Your task to perform on an android device: uninstall "eBay: The shopping marketplace" Image 0: 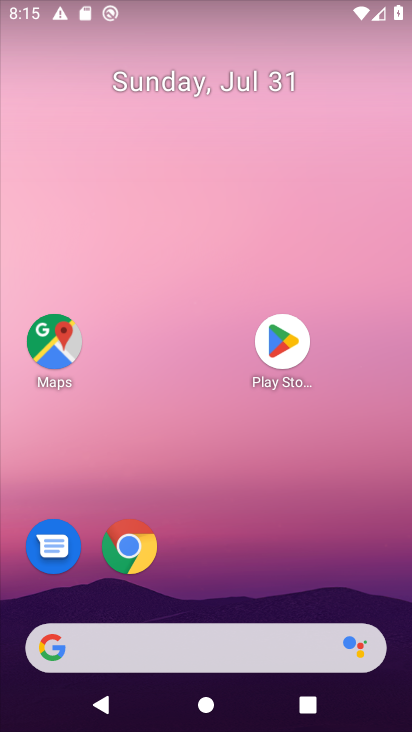
Step 0: click (289, 340)
Your task to perform on an android device: uninstall "eBay: The shopping marketplace" Image 1: 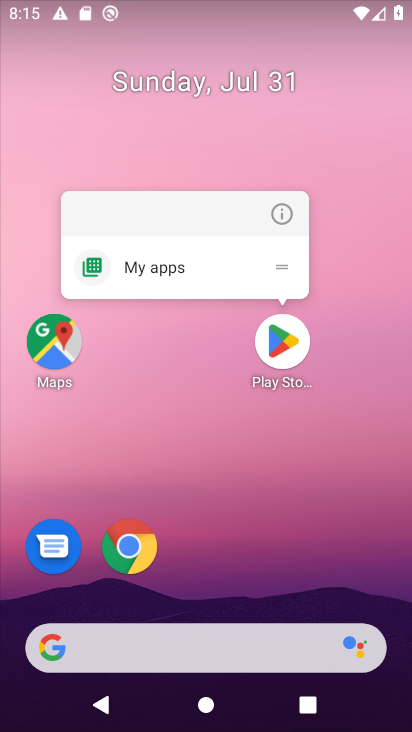
Step 1: click (286, 340)
Your task to perform on an android device: uninstall "eBay: The shopping marketplace" Image 2: 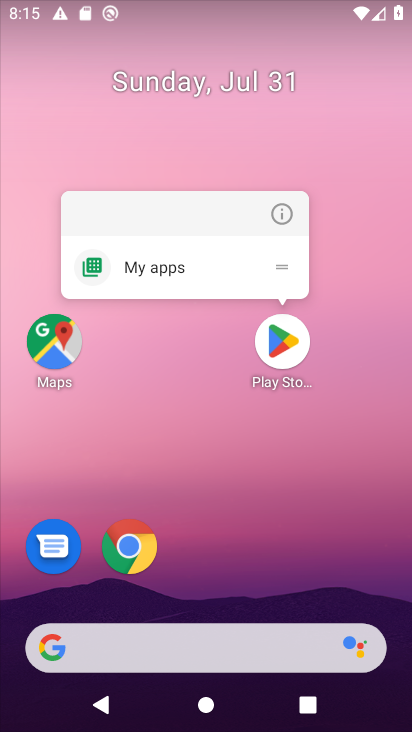
Step 2: click (282, 341)
Your task to perform on an android device: uninstall "eBay: The shopping marketplace" Image 3: 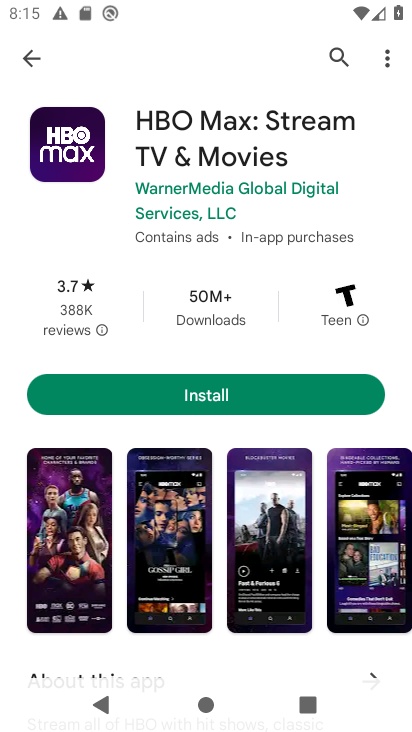
Step 3: click (282, 343)
Your task to perform on an android device: uninstall "eBay: The shopping marketplace" Image 4: 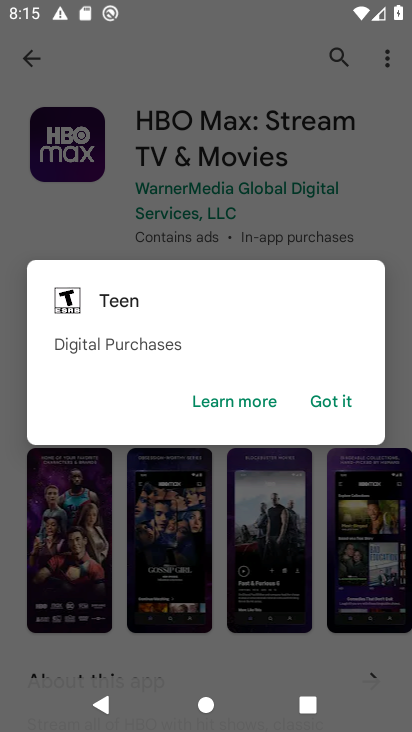
Step 4: click (335, 55)
Your task to perform on an android device: uninstall "eBay: The shopping marketplace" Image 5: 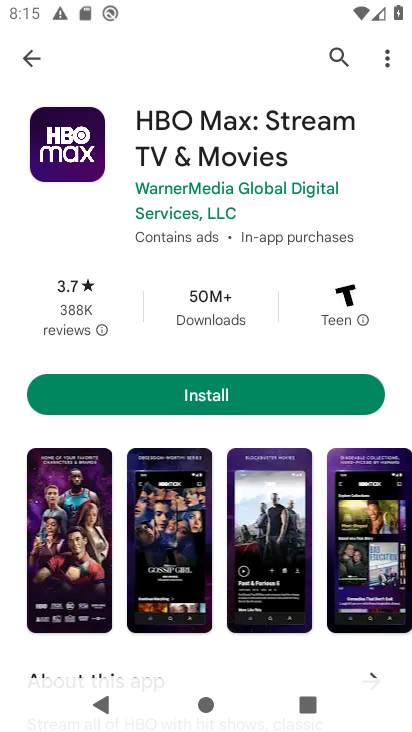
Step 5: click (335, 48)
Your task to perform on an android device: uninstall "eBay: The shopping marketplace" Image 6: 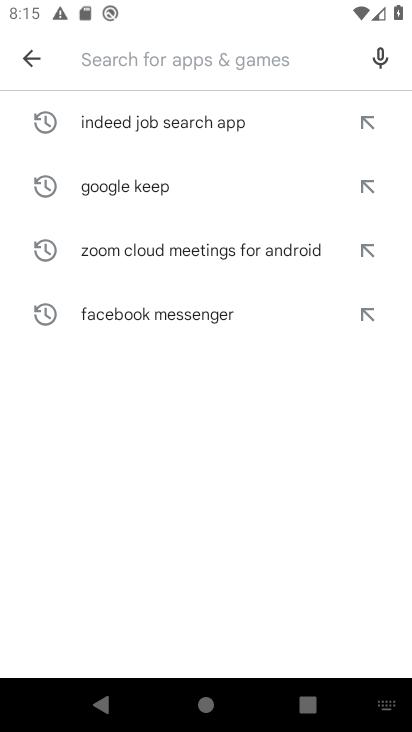
Step 6: type "eBay: The shopping marketplace"
Your task to perform on an android device: uninstall "eBay: The shopping marketplace" Image 7: 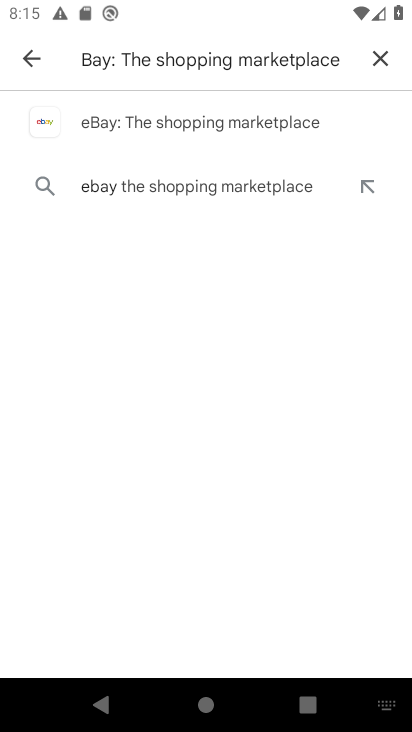
Step 7: click (238, 122)
Your task to perform on an android device: uninstall "eBay: The shopping marketplace" Image 8: 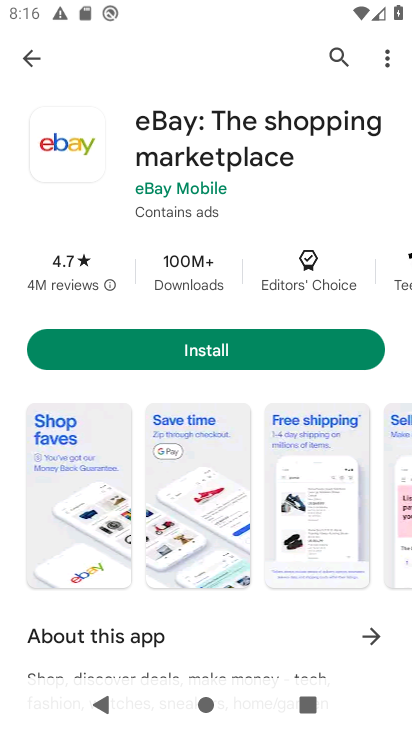
Step 8: task complete